Your task to perform on an android device: View the shopping cart on bestbuy. Search for "dell xps" on bestbuy, select the first entry, add it to the cart, then select checkout. Image 0: 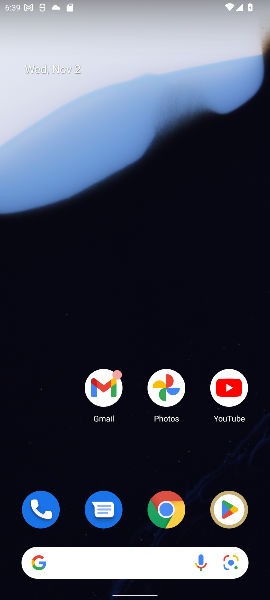
Step 0: click (135, 565)
Your task to perform on an android device: View the shopping cart on bestbuy. Search for "dell xps" on bestbuy, select the first entry, add it to the cart, then select checkout. Image 1: 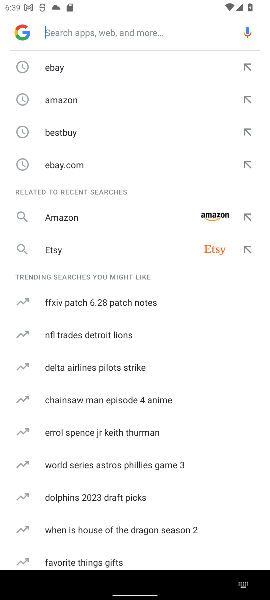
Step 1: click (67, 132)
Your task to perform on an android device: View the shopping cart on bestbuy. Search for "dell xps" on bestbuy, select the first entry, add it to the cart, then select checkout. Image 2: 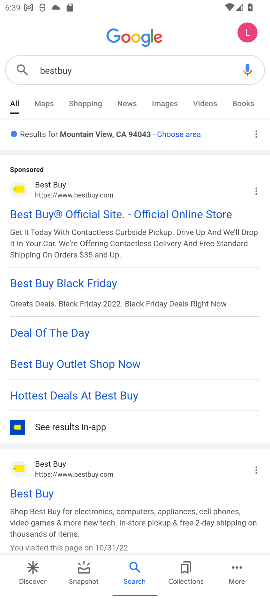
Step 2: click (29, 493)
Your task to perform on an android device: View the shopping cart on bestbuy. Search for "dell xps" on bestbuy, select the first entry, add it to the cart, then select checkout. Image 3: 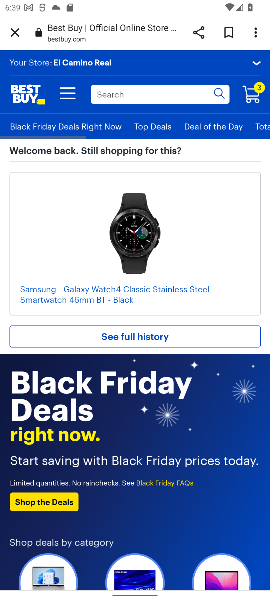
Step 3: click (256, 87)
Your task to perform on an android device: View the shopping cart on bestbuy. Search for "dell xps" on bestbuy, select the first entry, add it to the cart, then select checkout. Image 4: 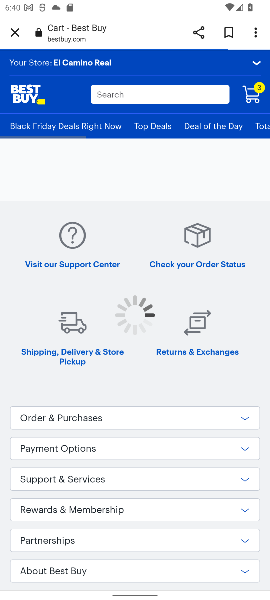
Step 4: click (117, 90)
Your task to perform on an android device: View the shopping cart on bestbuy. Search for "dell xps" on bestbuy, select the first entry, add it to the cart, then select checkout. Image 5: 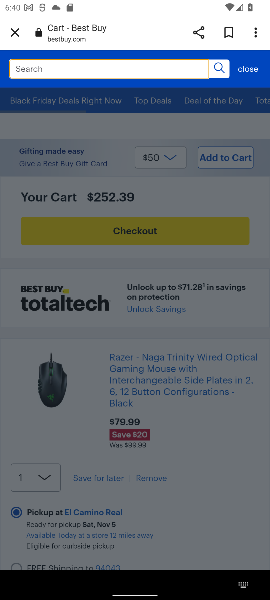
Step 5: type "dell xps"
Your task to perform on an android device: View the shopping cart on bestbuy. Search for "dell xps" on bestbuy, select the first entry, add it to the cart, then select checkout. Image 6: 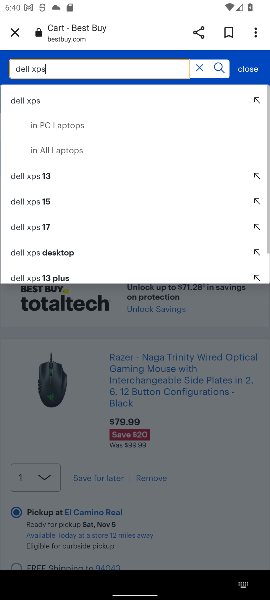
Step 6: click (221, 64)
Your task to perform on an android device: View the shopping cart on bestbuy. Search for "dell xps" on bestbuy, select the first entry, add it to the cart, then select checkout. Image 7: 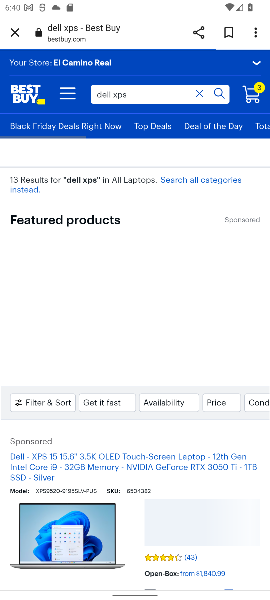
Step 7: drag from (247, 492) to (216, 355)
Your task to perform on an android device: View the shopping cart on bestbuy. Search for "dell xps" on bestbuy, select the first entry, add it to the cart, then select checkout. Image 8: 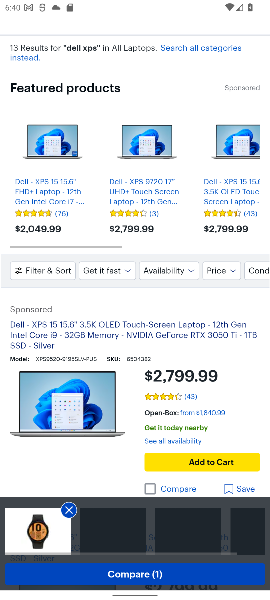
Step 8: click (192, 460)
Your task to perform on an android device: View the shopping cart on bestbuy. Search for "dell xps" on bestbuy, select the first entry, add it to the cart, then select checkout. Image 9: 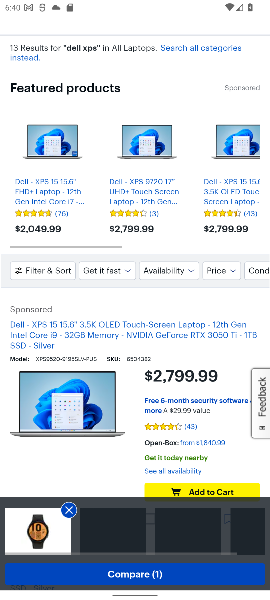
Step 9: click (198, 488)
Your task to perform on an android device: View the shopping cart on bestbuy. Search for "dell xps" on bestbuy, select the first entry, add it to the cart, then select checkout. Image 10: 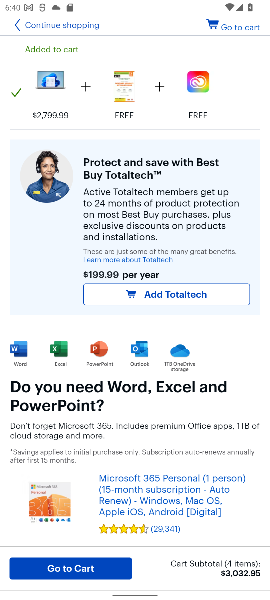
Step 10: click (65, 566)
Your task to perform on an android device: View the shopping cart on bestbuy. Search for "dell xps" on bestbuy, select the first entry, add it to the cart, then select checkout. Image 11: 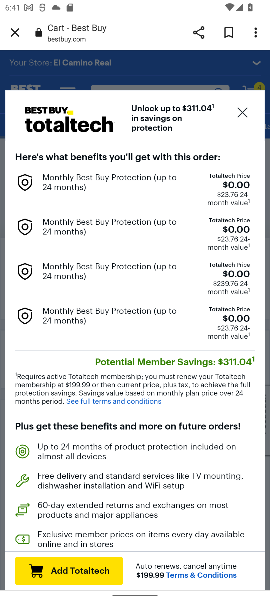
Step 11: drag from (141, 478) to (141, 283)
Your task to perform on an android device: View the shopping cart on bestbuy. Search for "dell xps" on bestbuy, select the first entry, add it to the cart, then select checkout. Image 12: 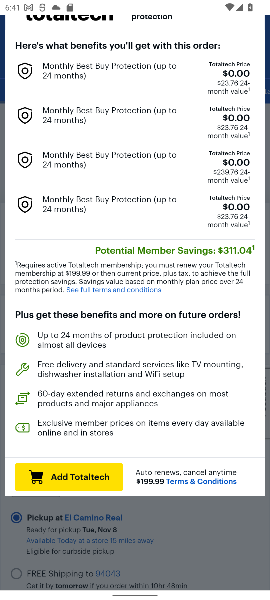
Step 12: drag from (180, 231) to (102, 556)
Your task to perform on an android device: View the shopping cart on bestbuy. Search for "dell xps" on bestbuy, select the first entry, add it to the cart, then select checkout. Image 13: 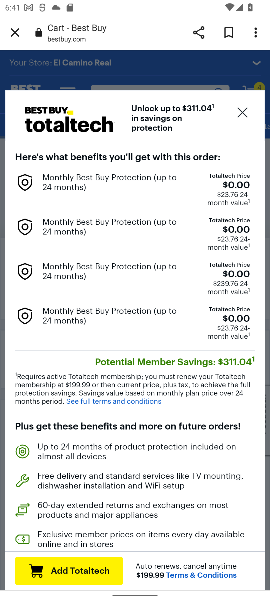
Step 13: click (239, 111)
Your task to perform on an android device: View the shopping cart on bestbuy. Search for "dell xps" on bestbuy, select the first entry, add it to the cart, then select checkout. Image 14: 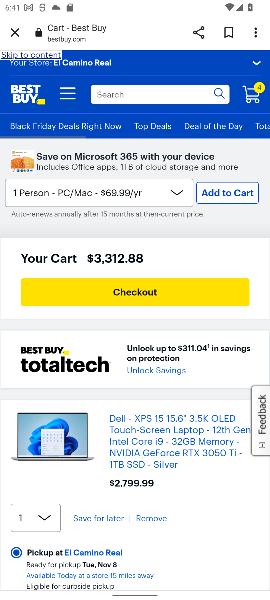
Step 14: click (147, 291)
Your task to perform on an android device: View the shopping cart on bestbuy. Search for "dell xps" on bestbuy, select the first entry, add it to the cart, then select checkout. Image 15: 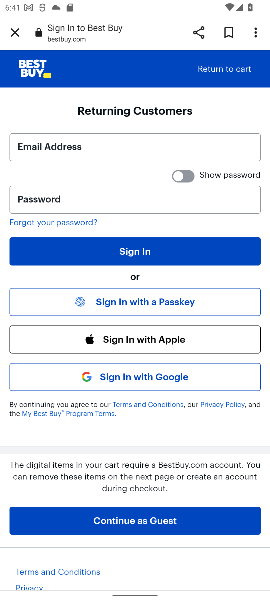
Step 15: task complete